Your task to perform on an android device: change the clock display to digital Image 0: 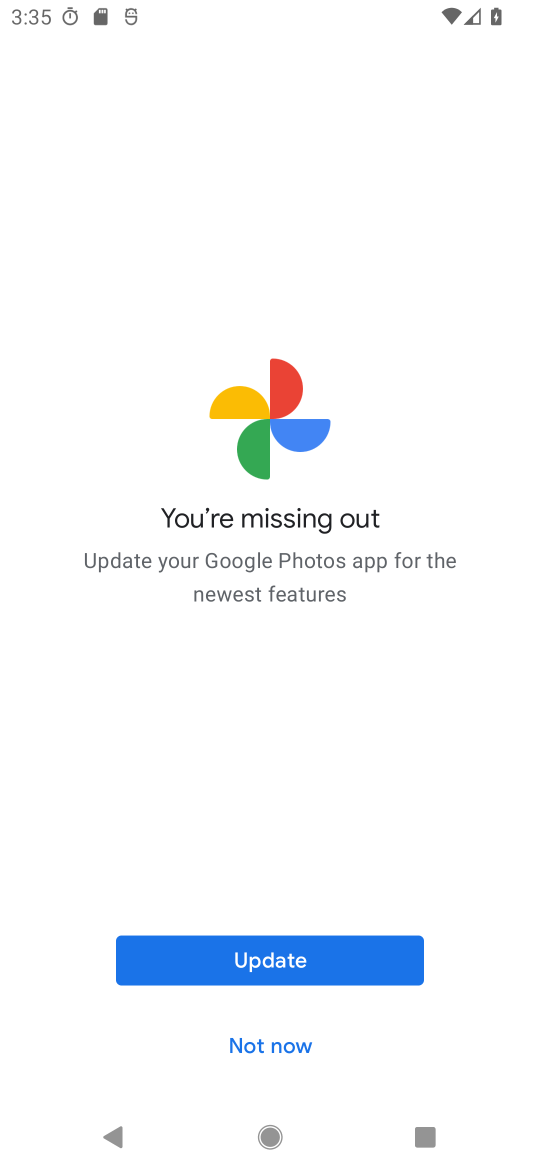
Step 0: press home button
Your task to perform on an android device: change the clock display to digital Image 1: 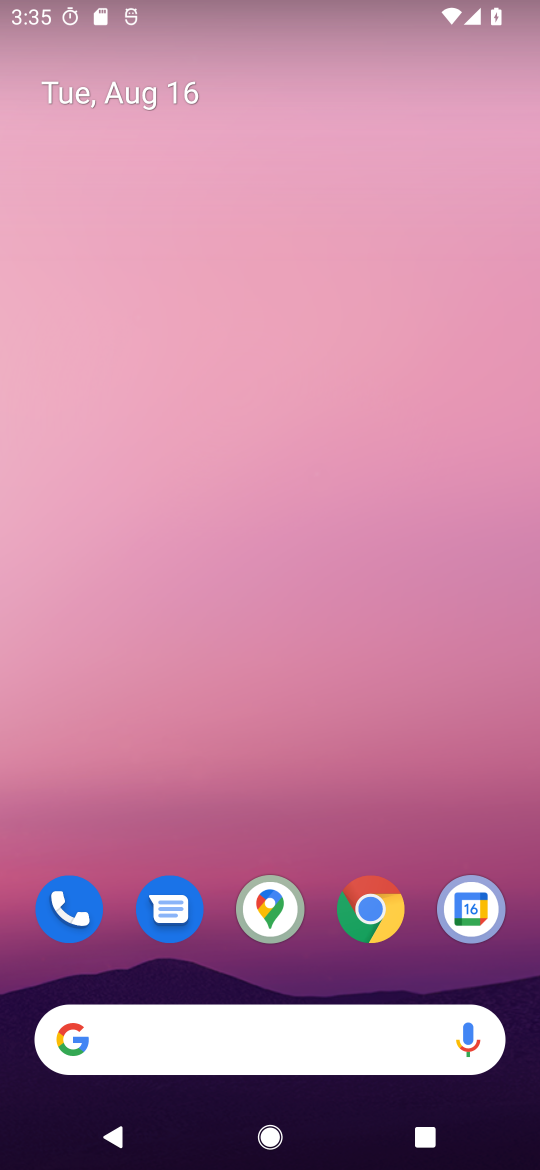
Step 1: drag from (261, 825) to (370, 0)
Your task to perform on an android device: change the clock display to digital Image 2: 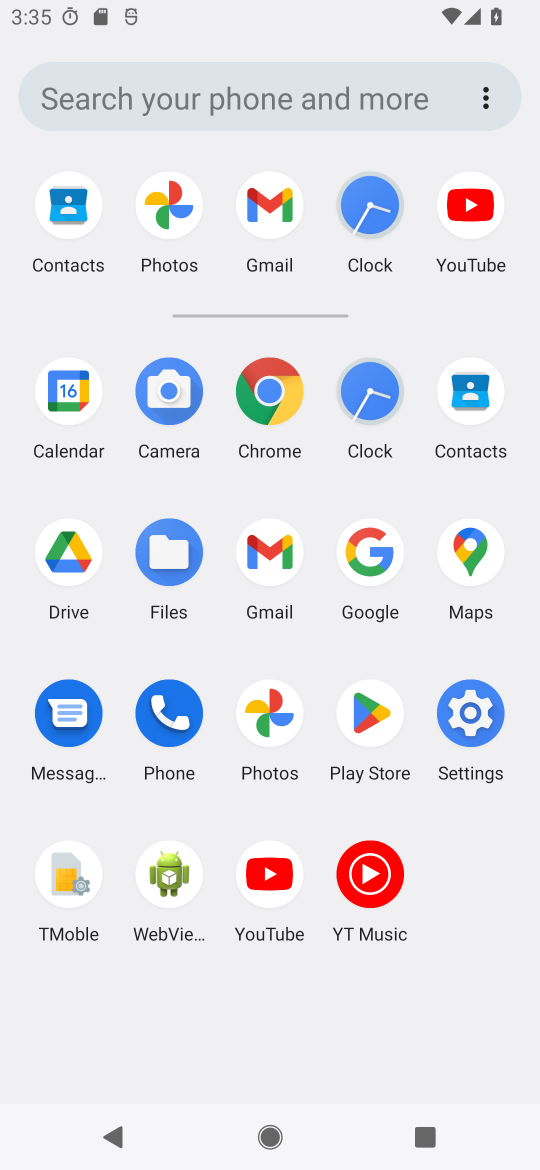
Step 2: click (375, 221)
Your task to perform on an android device: change the clock display to digital Image 3: 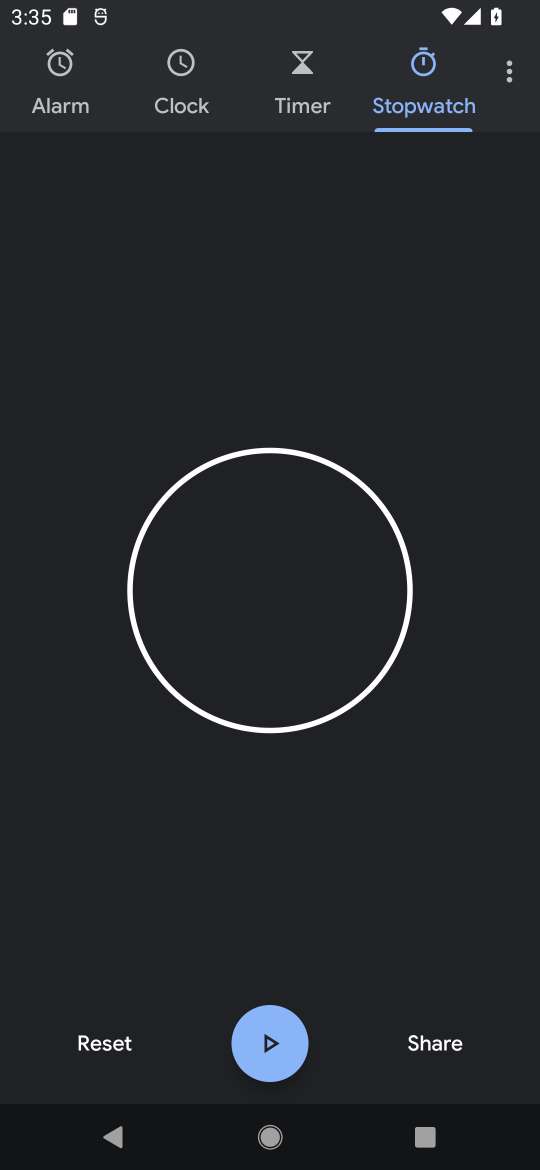
Step 3: click (178, 81)
Your task to perform on an android device: change the clock display to digital Image 4: 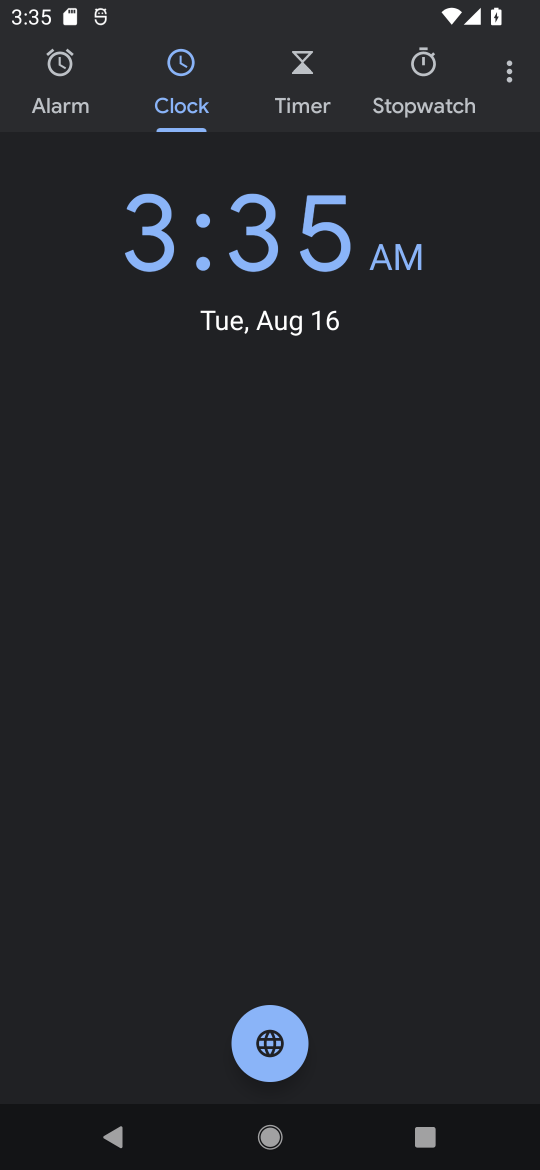
Step 4: click (505, 76)
Your task to perform on an android device: change the clock display to digital Image 5: 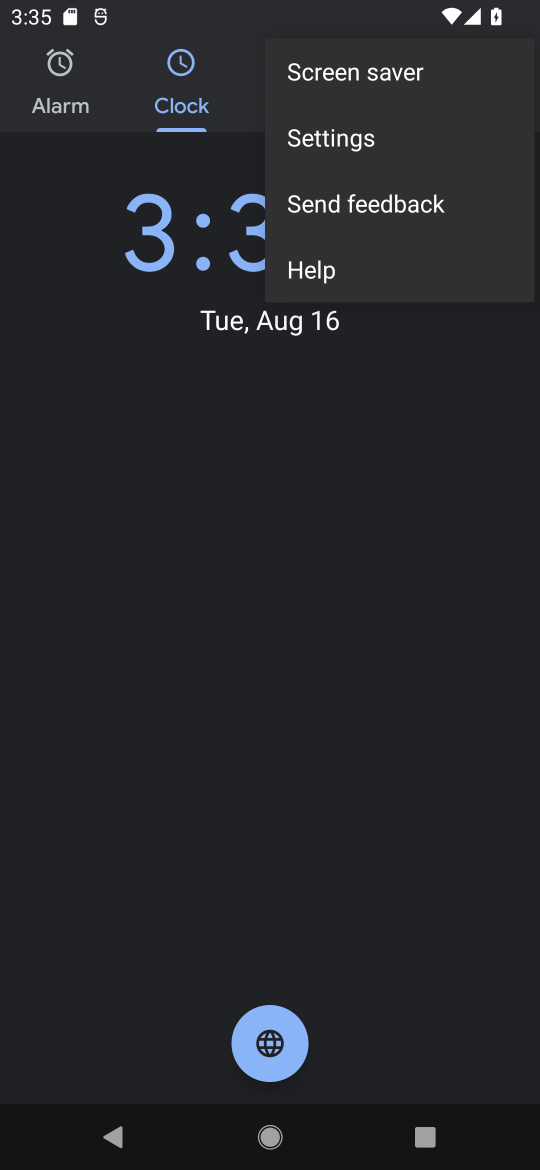
Step 5: click (365, 145)
Your task to perform on an android device: change the clock display to digital Image 6: 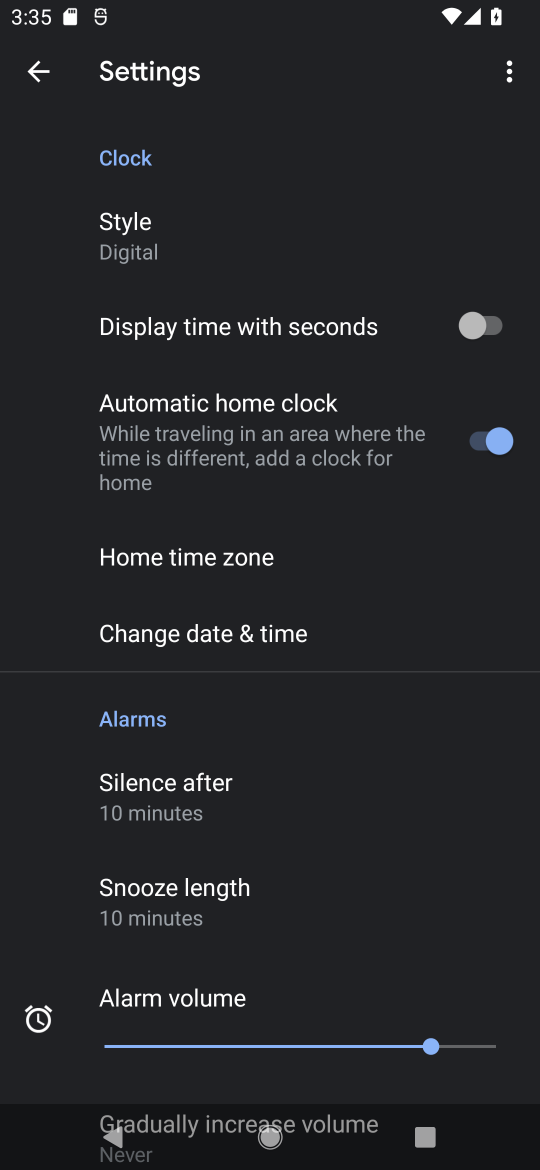
Step 6: task complete